Your task to perform on an android device: open a bookmark in the chrome app Image 0: 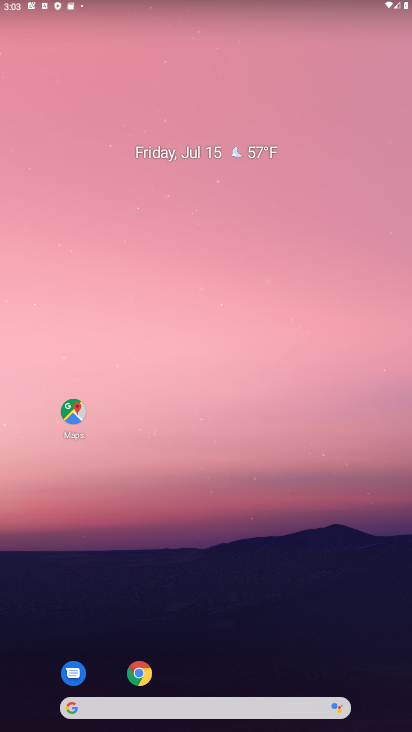
Step 0: click (137, 674)
Your task to perform on an android device: open a bookmark in the chrome app Image 1: 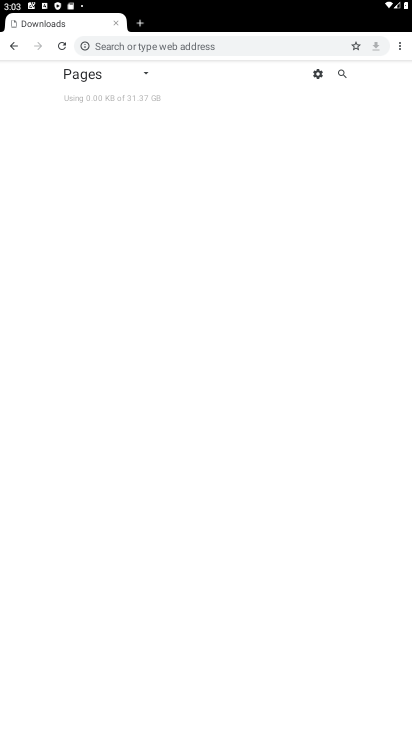
Step 1: click (398, 46)
Your task to perform on an android device: open a bookmark in the chrome app Image 2: 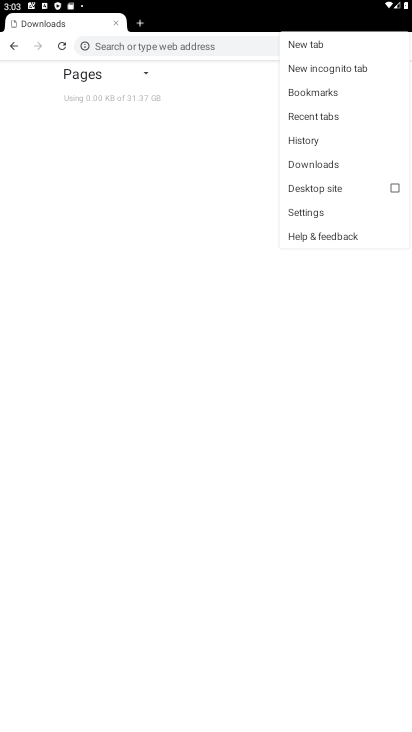
Step 2: click (309, 94)
Your task to perform on an android device: open a bookmark in the chrome app Image 3: 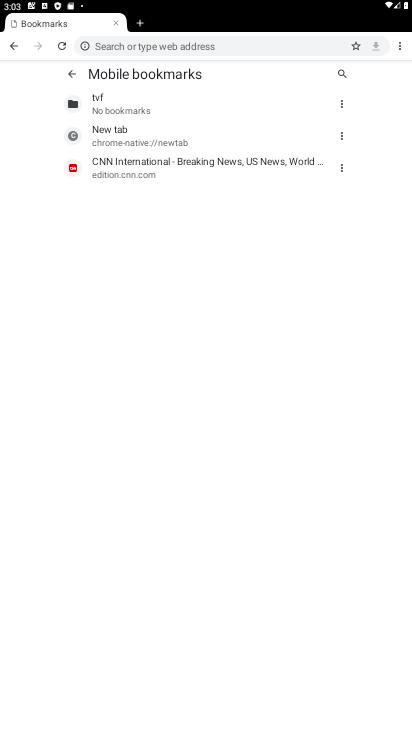
Step 3: click (106, 164)
Your task to perform on an android device: open a bookmark in the chrome app Image 4: 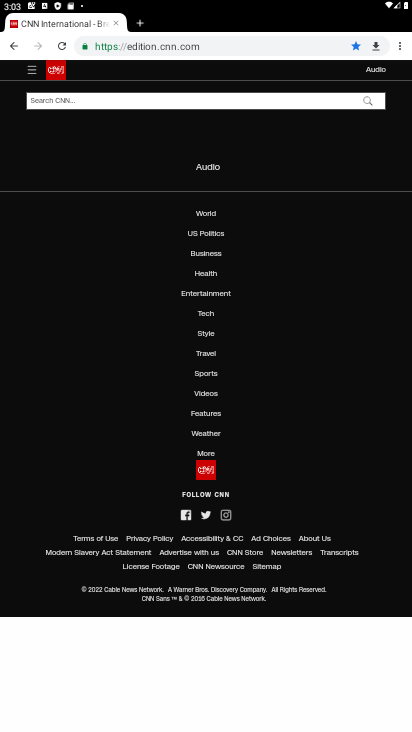
Step 4: task complete